Your task to perform on an android device: Open privacy settings Image 0: 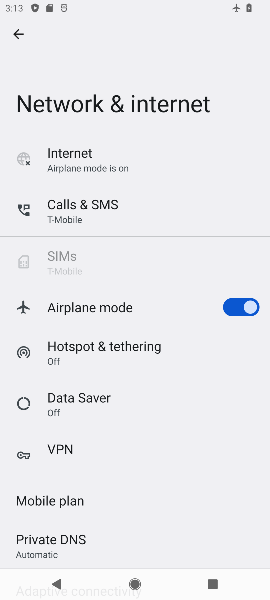
Step 0: press home button
Your task to perform on an android device: Open privacy settings Image 1: 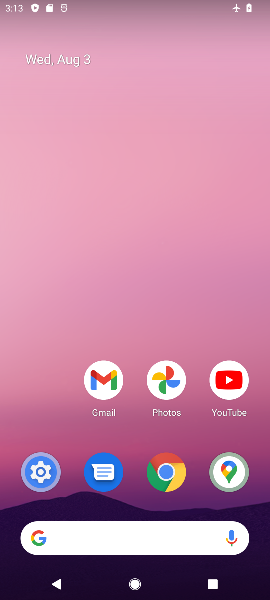
Step 1: drag from (195, 527) to (96, 56)
Your task to perform on an android device: Open privacy settings Image 2: 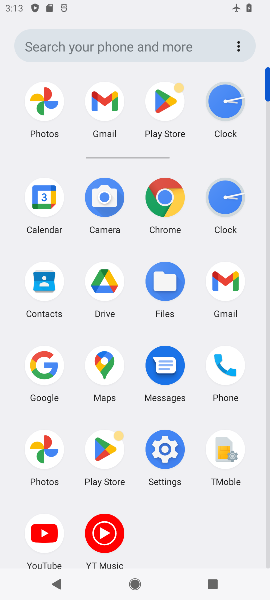
Step 2: click (157, 455)
Your task to perform on an android device: Open privacy settings Image 3: 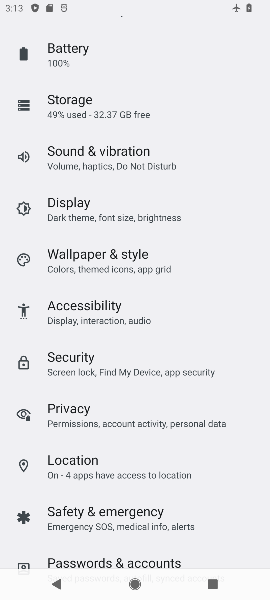
Step 3: click (87, 425)
Your task to perform on an android device: Open privacy settings Image 4: 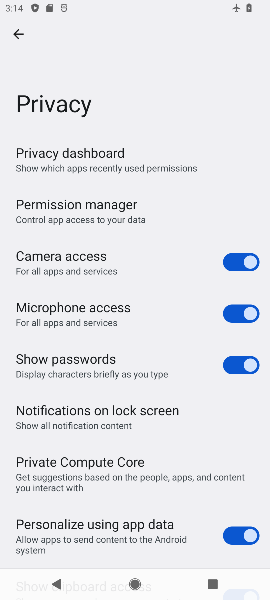
Step 4: task complete